Your task to perform on an android device: toggle location history Image 0: 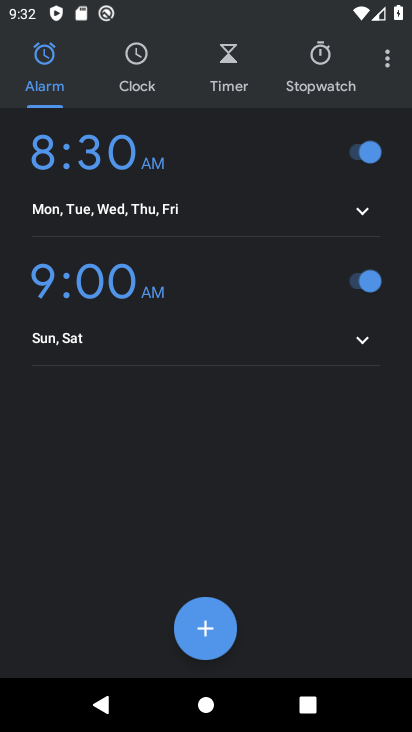
Step 0: press home button
Your task to perform on an android device: toggle location history Image 1: 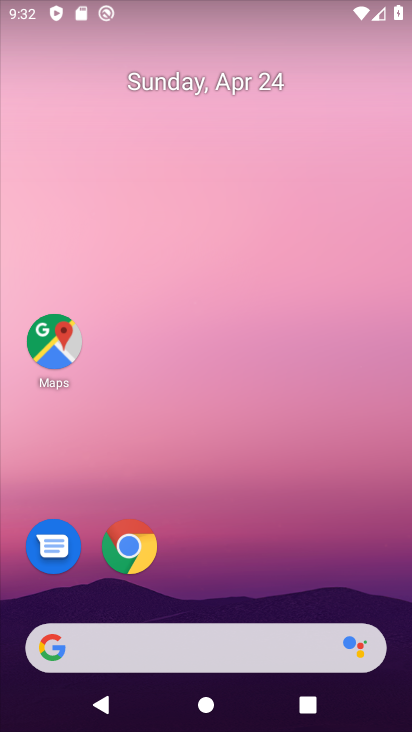
Step 1: drag from (282, 607) to (381, 114)
Your task to perform on an android device: toggle location history Image 2: 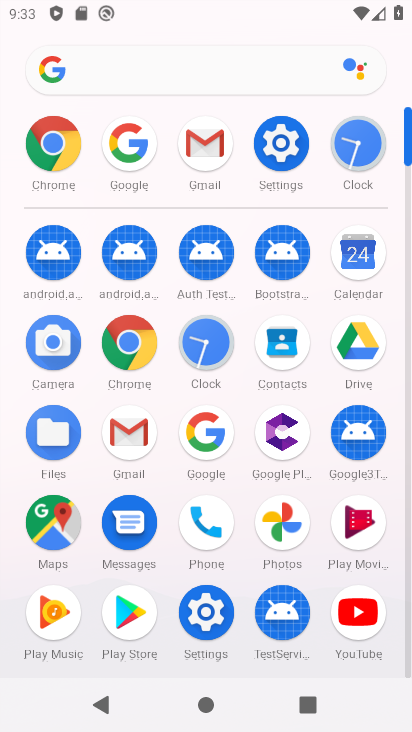
Step 2: click (283, 158)
Your task to perform on an android device: toggle location history Image 3: 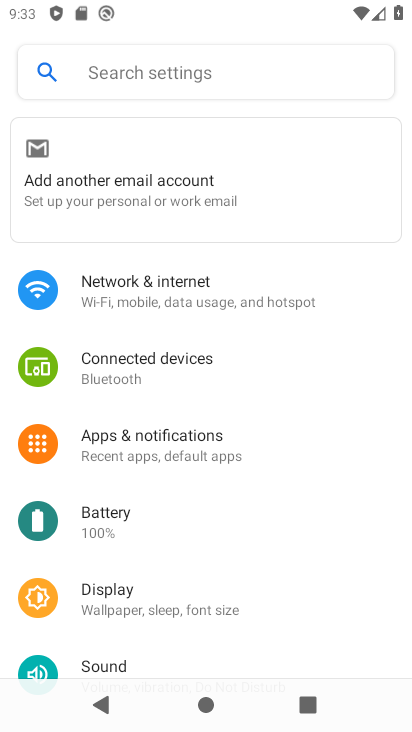
Step 3: drag from (272, 603) to (316, 248)
Your task to perform on an android device: toggle location history Image 4: 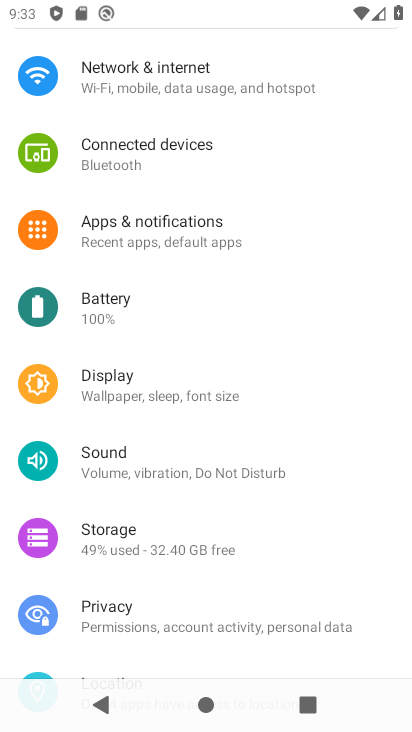
Step 4: drag from (145, 592) to (233, 208)
Your task to perform on an android device: toggle location history Image 5: 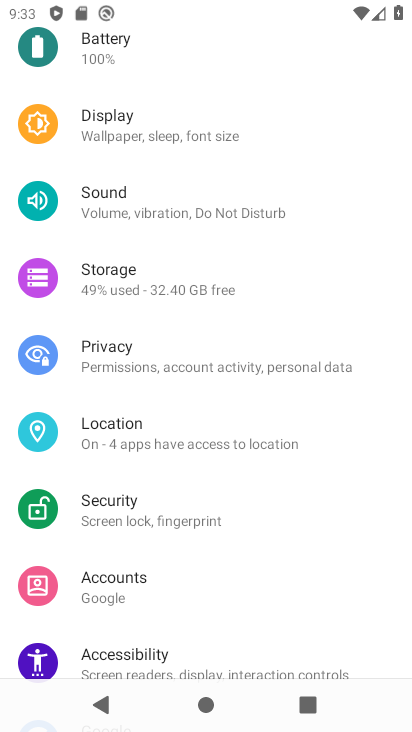
Step 5: click (159, 439)
Your task to perform on an android device: toggle location history Image 6: 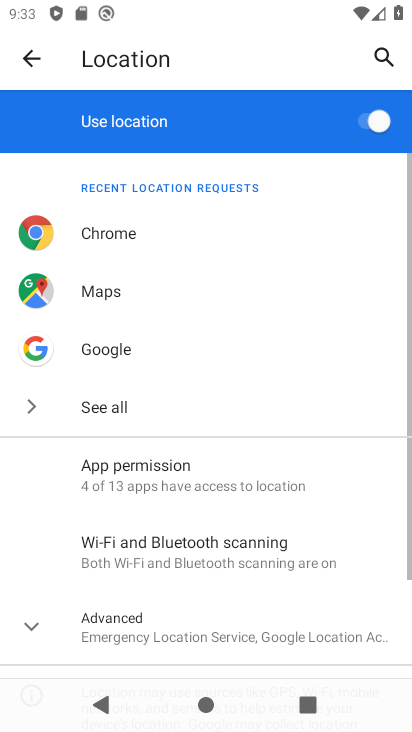
Step 6: click (373, 125)
Your task to perform on an android device: toggle location history Image 7: 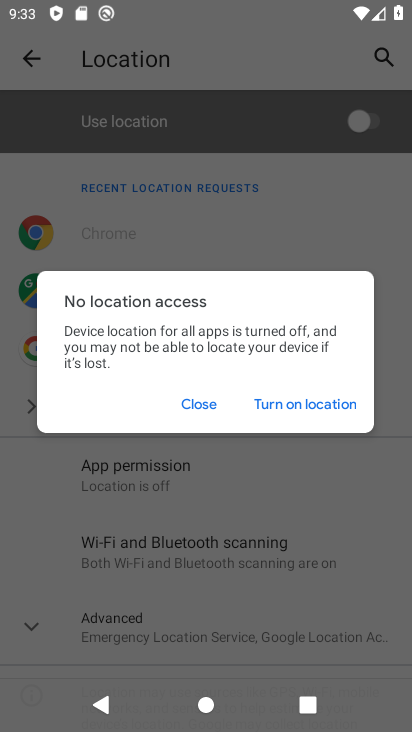
Step 7: task complete